Your task to perform on an android device: open a bookmark in the chrome app Image 0: 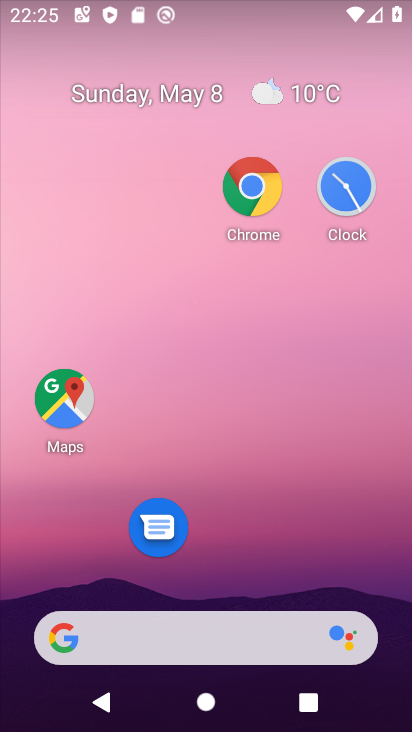
Step 0: click (262, 182)
Your task to perform on an android device: open a bookmark in the chrome app Image 1: 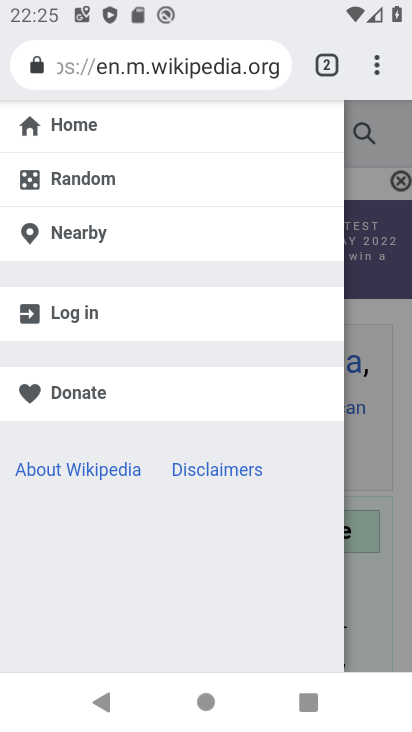
Step 1: click (375, 66)
Your task to perform on an android device: open a bookmark in the chrome app Image 2: 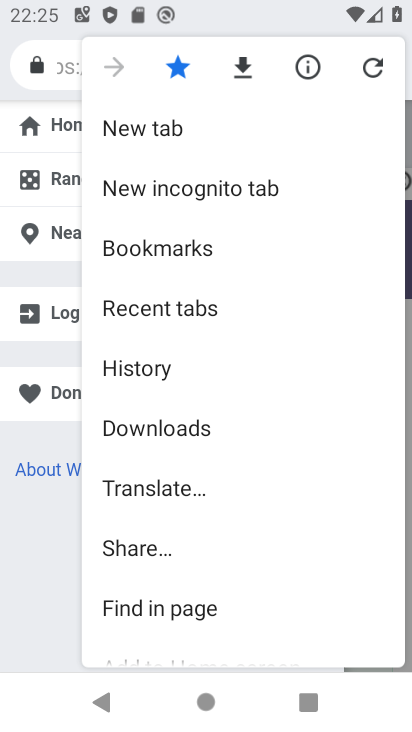
Step 2: click (292, 239)
Your task to perform on an android device: open a bookmark in the chrome app Image 3: 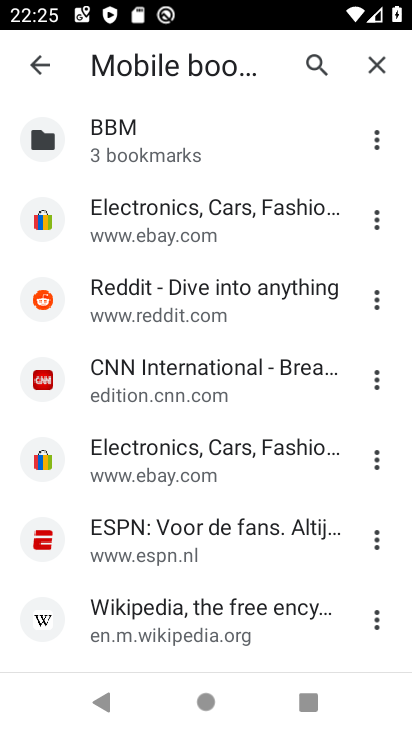
Step 3: task complete